Your task to perform on an android device: see sites visited before in the chrome app Image 0: 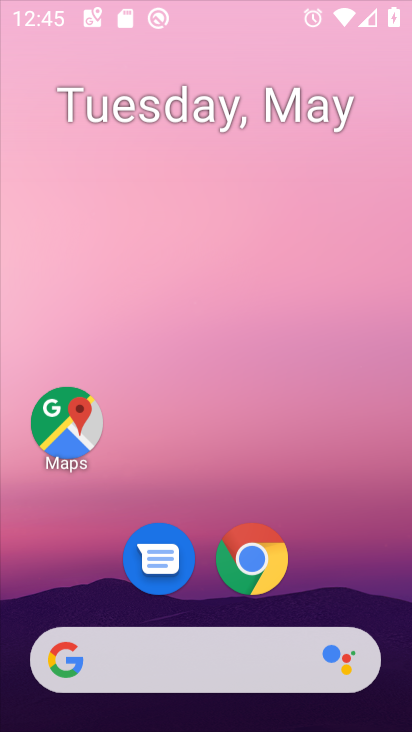
Step 0: drag from (375, 585) to (296, 132)
Your task to perform on an android device: see sites visited before in the chrome app Image 1: 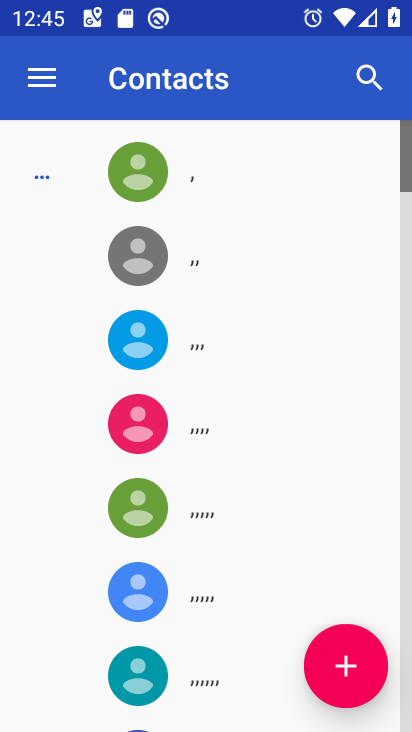
Step 1: press home button
Your task to perform on an android device: see sites visited before in the chrome app Image 2: 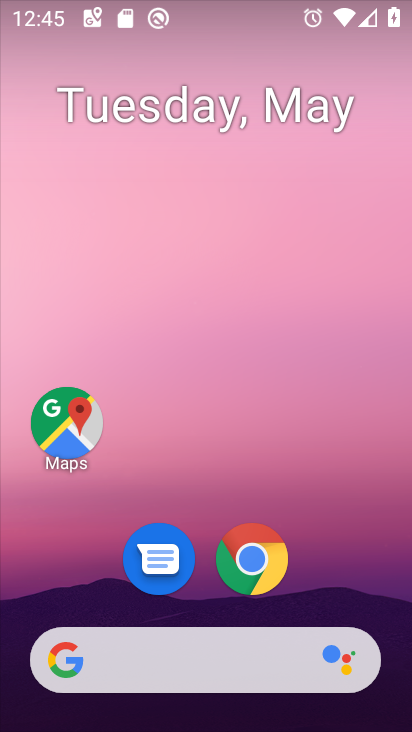
Step 2: click (260, 579)
Your task to perform on an android device: see sites visited before in the chrome app Image 3: 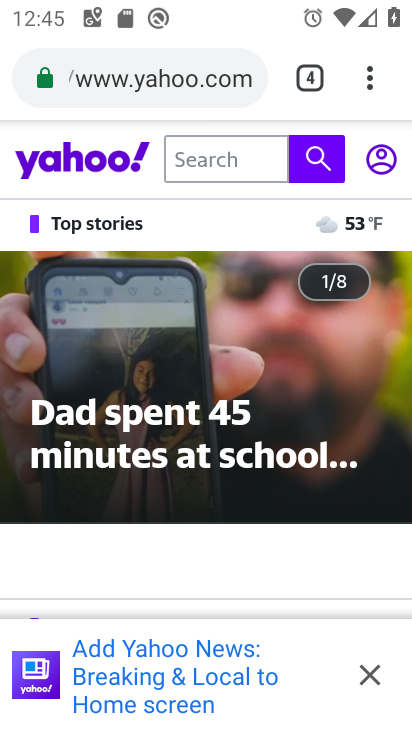
Step 3: click (365, 85)
Your task to perform on an android device: see sites visited before in the chrome app Image 4: 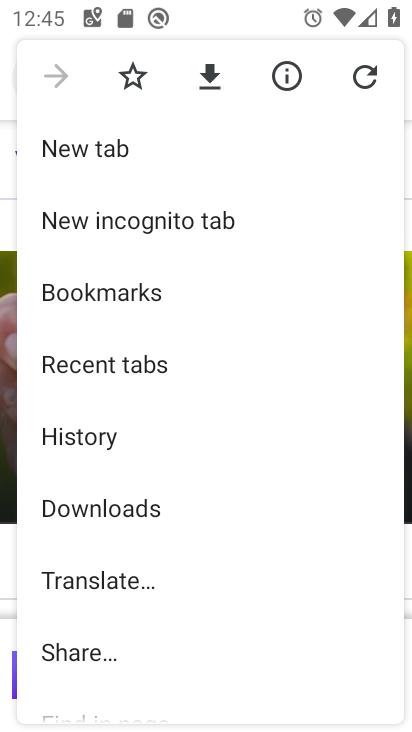
Step 4: drag from (181, 676) to (144, 215)
Your task to perform on an android device: see sites visited before in the chrome app Image 5: 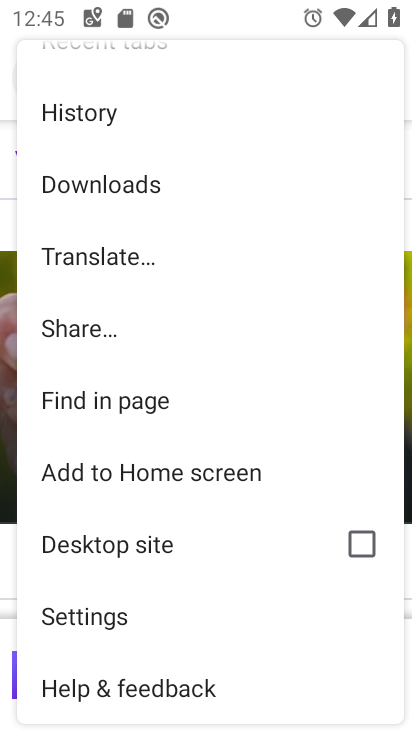
Step 5: click (101, 117)
Your task to perform on an android device: see sites visited before in the chrome app Image 6: 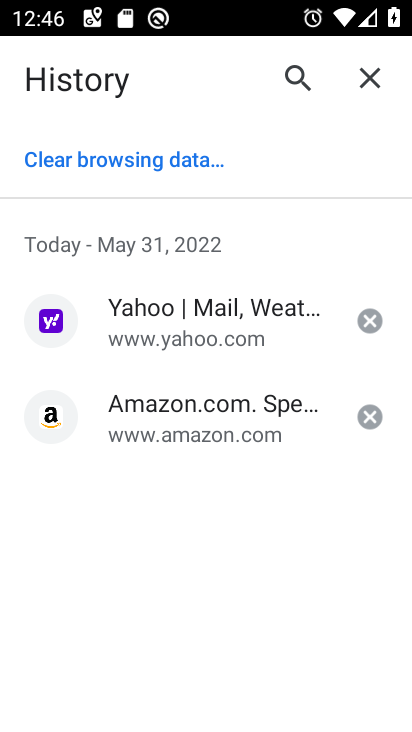
Step 6: task complete